Your task to perform on an android device: turn off sleep mode Image 0: 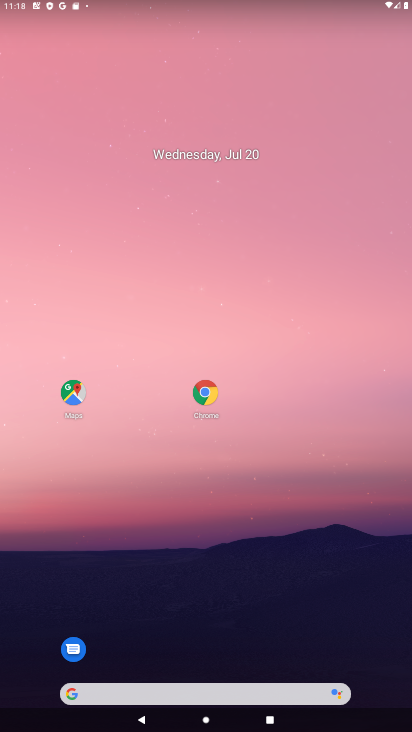
Step 0: drag from (196, 630) to (216, 258)
Your task to perform on an android device: turn off sleep mode Image 1: 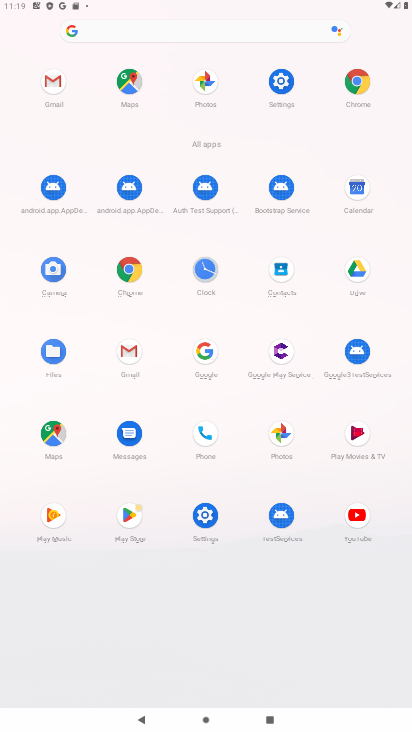
Step 1: click (293, 78)
Your task to perform on an android device: turn off sleep mode Image 2: 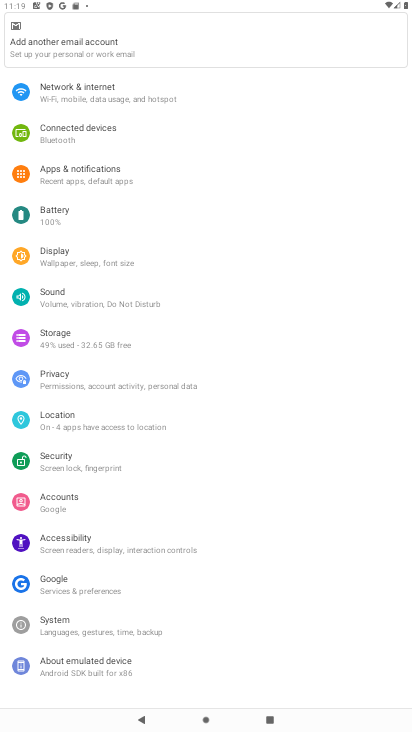
Step 2: task complete